Your task to perform on an android device: check android version Image 0: 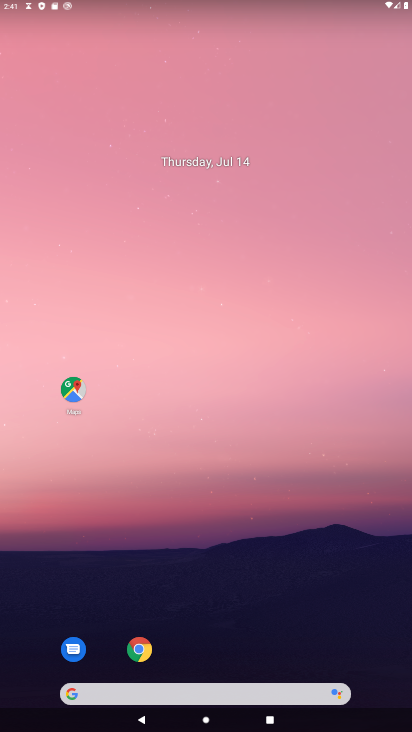
Step 0: drag from (277, 643) to (259, 12)
Your task to perform on an android device: check android version Image 1: 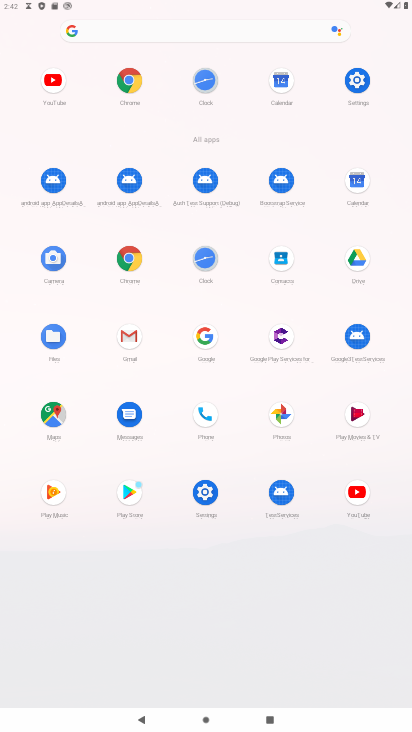
Step 1: click (205, 498)
Your task to perform on an android device: check android version Image 2: 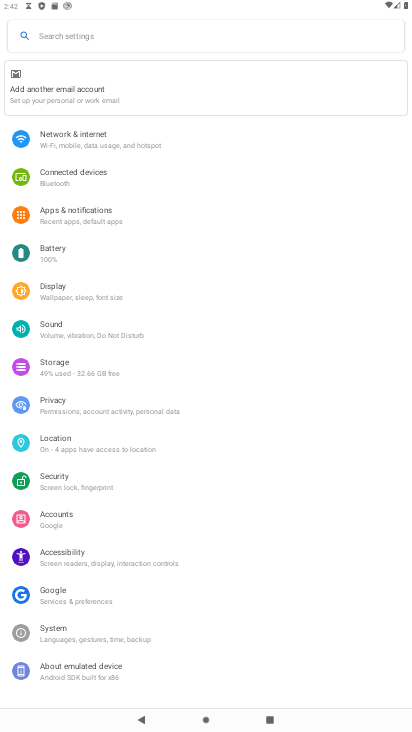
Step 2: drag from (126, 586) to (141, 349)
Your task to perform on an android device: check android version Image 3: 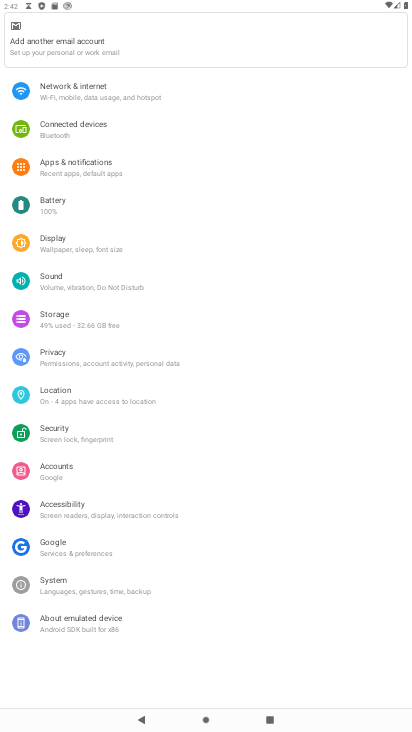
Step 3: click (80, 630)
Your task to perform on an android device: check android version Image 4: 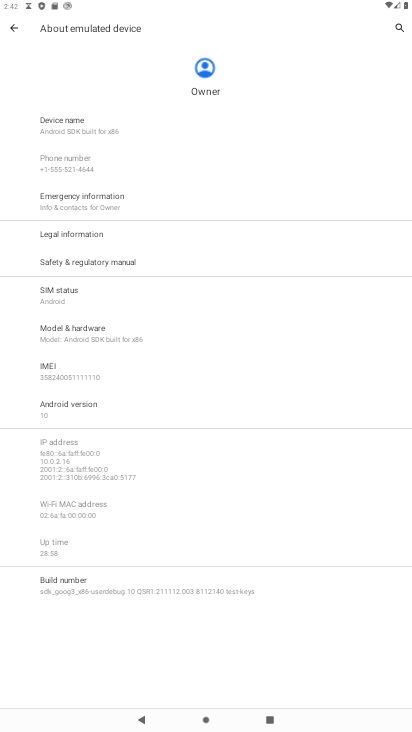
Step 4: click (102, 416)
Your task to perform on an android device: check android version Image 5: 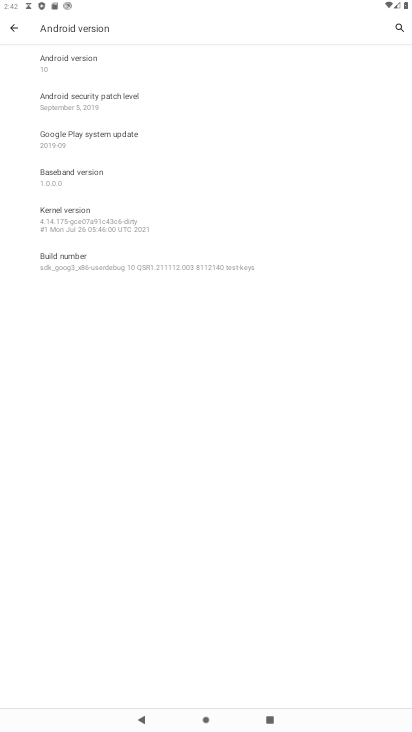
Step 5: click (88, 63)
Your task to perform on an android device: check android version Image 6: 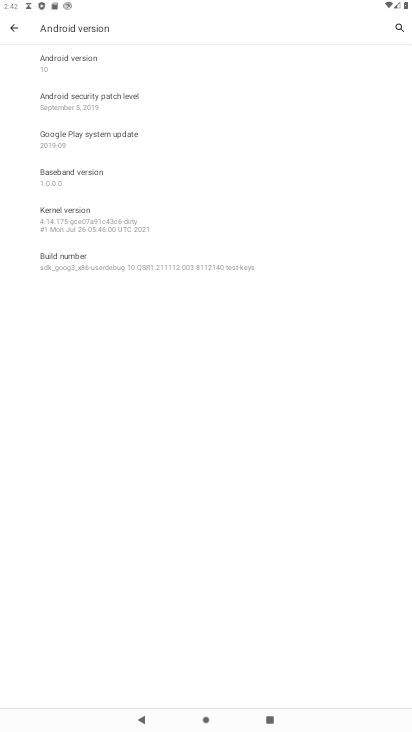
Step 6: task complete